Your task to perform on an android device: Go to wifi settings Image 0: 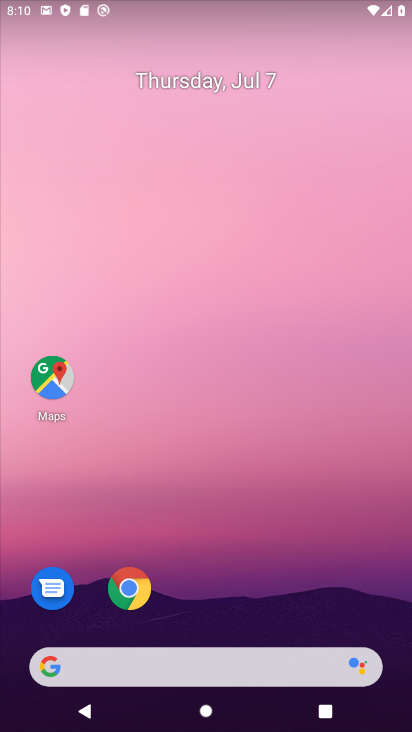
Step 0: drag from (155, 8) to (145, 442)
Your task to perform on an android device: Go to wifi settings Image 1: 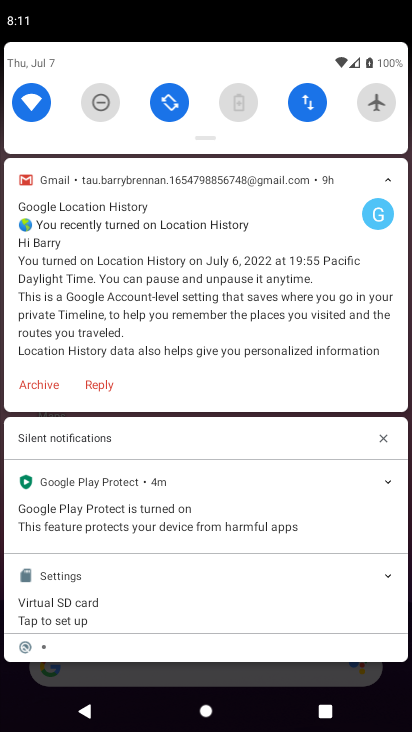
Step 1: click (28, 102)
Your task to perform on an android device: Go to wifi settings Image 2: 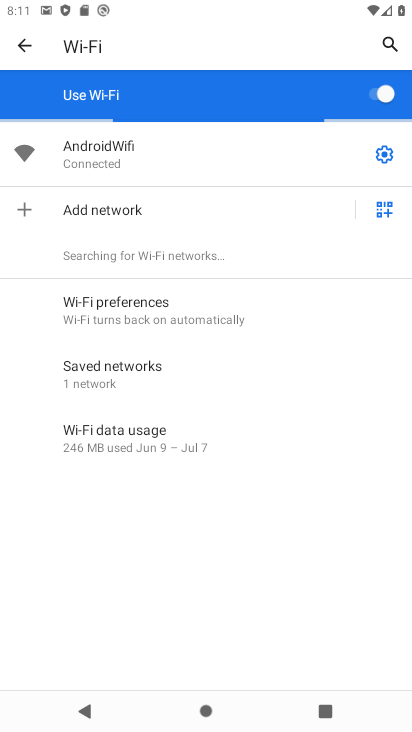
Step 2: task complete